Your task to perform on an android device: Go to location settings Image 0: 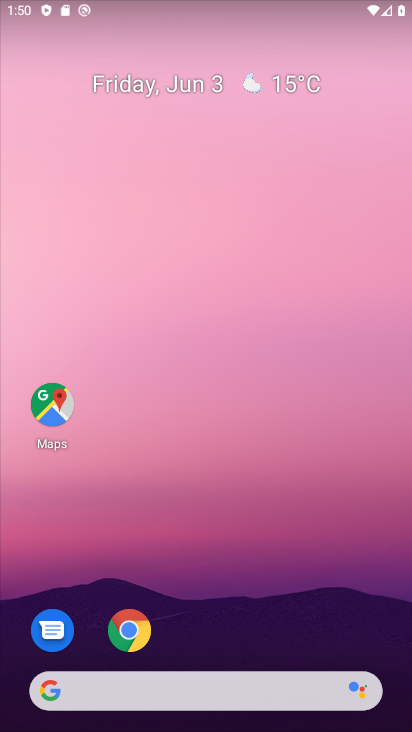
Step 0: drag from (261, 581) to (226, 45)
Your task to perform on an android device: Go to location settings Image 1: 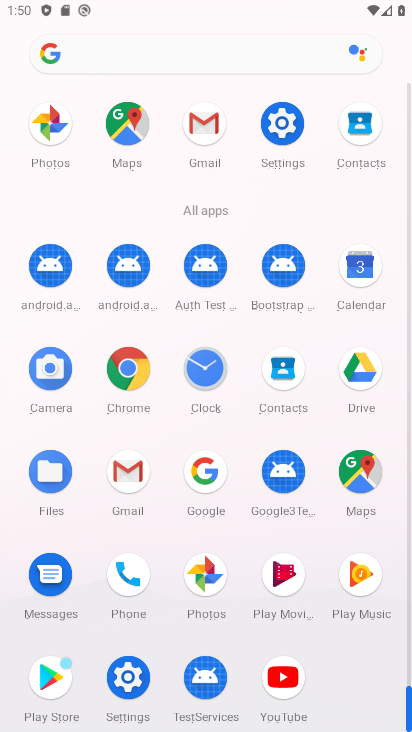
Step 1: drag from (9, 506) to (4, 236)
Your task to perform on an android device: Go to location settings Image 2: 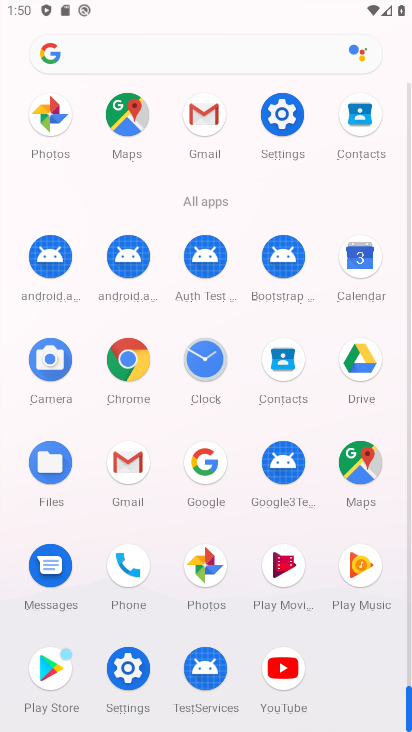
Step 2: click (126, 669)
Your task to perform on an android device: Go to location settings Image 3: 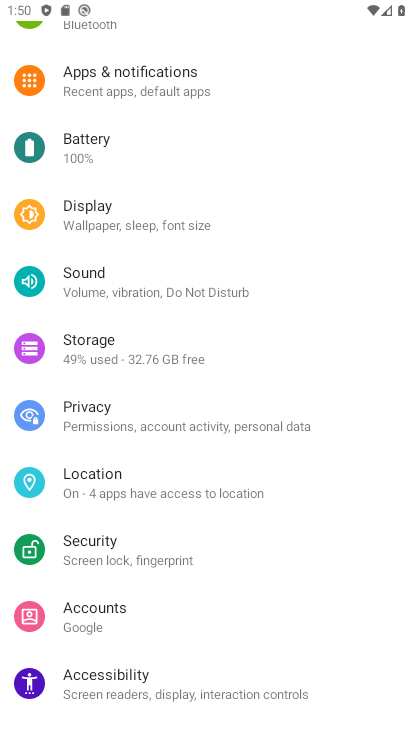
Step 3: click (127, 478)
Your task to perform on an android device: Go to location settings Image 4: 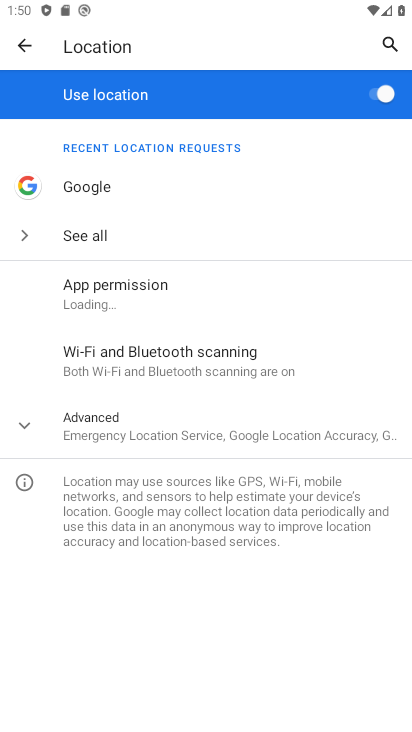
Step 4: click (27, 419)
Your task to perform on an android device: Go to location settings Image 5: 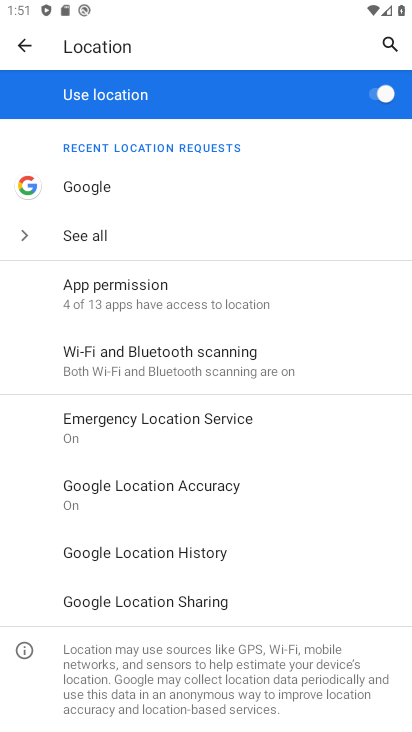
Step 5: task complete